Your task to perform on an android device: Open calendar and show me the fourth week of next month Image 0: 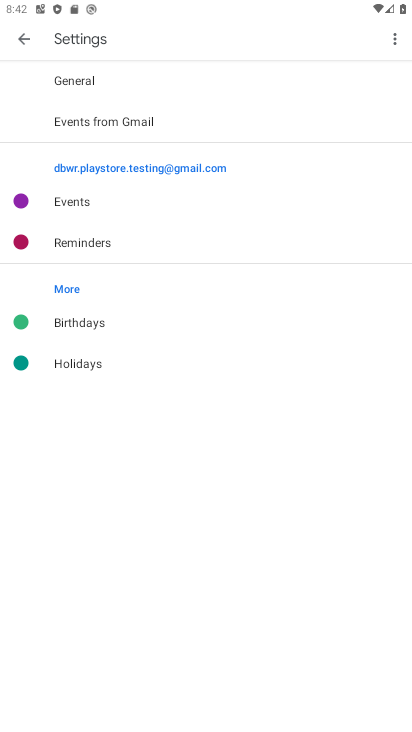
Step 0: press home button
Your task to perform on an android device: Open calendar and show me the fourth week of next month Image 1: 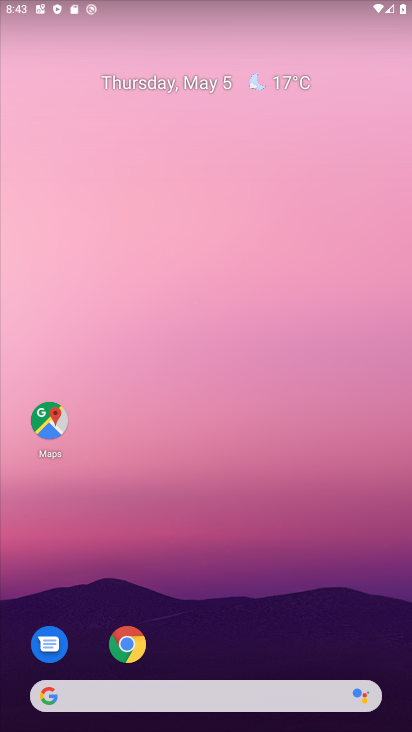
Step 1: drag from (239, 592) to (262, 54)
Your task to perform on an android device: Open calendar and show me the fourth week of next month Image 2: 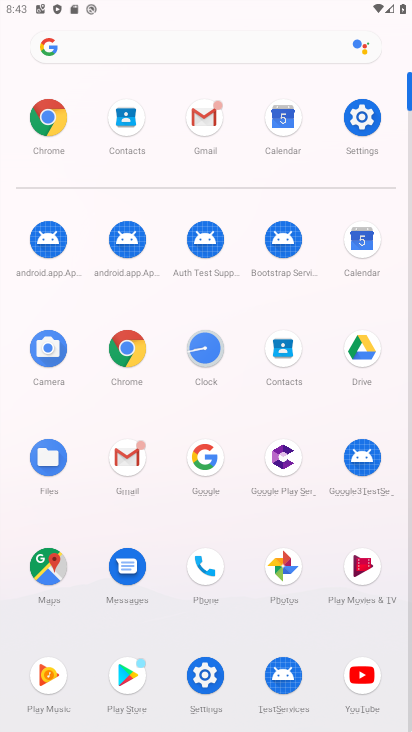
Step 2: click (367, 241)
Your task to perform on an android device: Open calendar and show me the fourth week of next month Image 3: 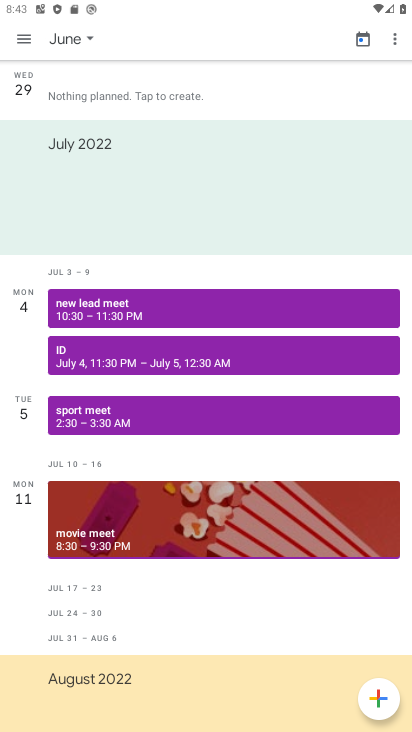
Step 3: click (22, 43)
Your task to perform on an android device: Open calendar and show me the fourth week of next month Image 4: 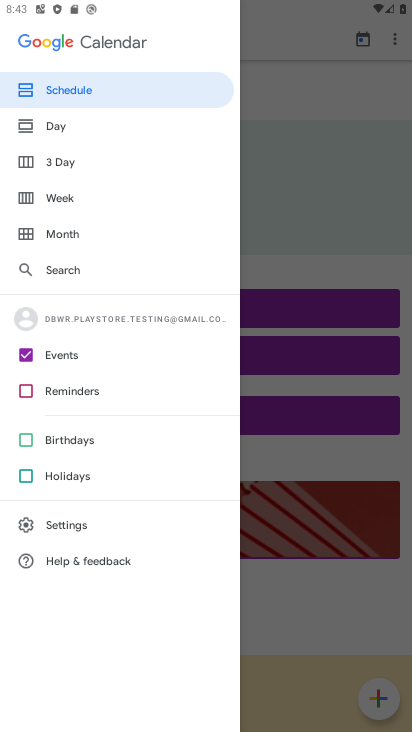
Step 4: click (83, 187)
Your task to perform on an android device: Open calendar and show me the fourth week of next month Image 5: 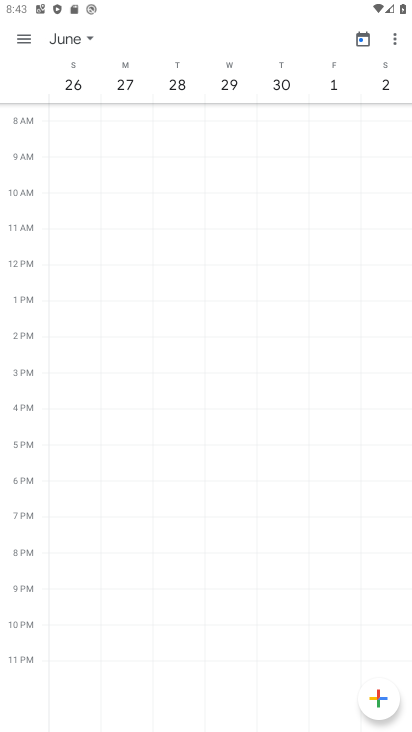
Step 5: click (83, 46)
Your task to perform on an android device: Open calendar and show me the fourth week of next month Image 6: 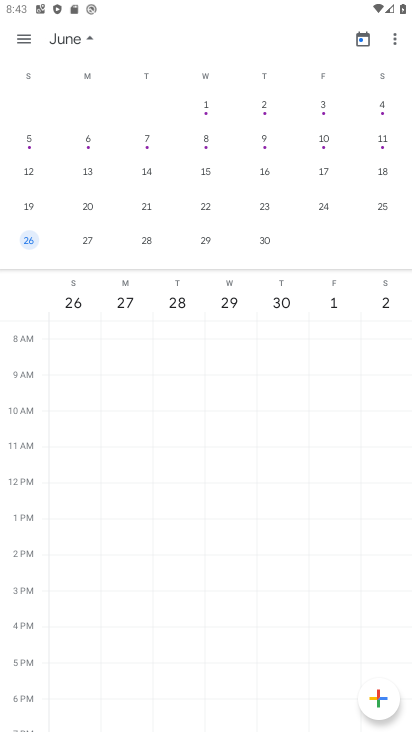
Step 6: task complete